Your task to perform on an android device: uninstall "Walmart Shopping & Grocery" Image 0: 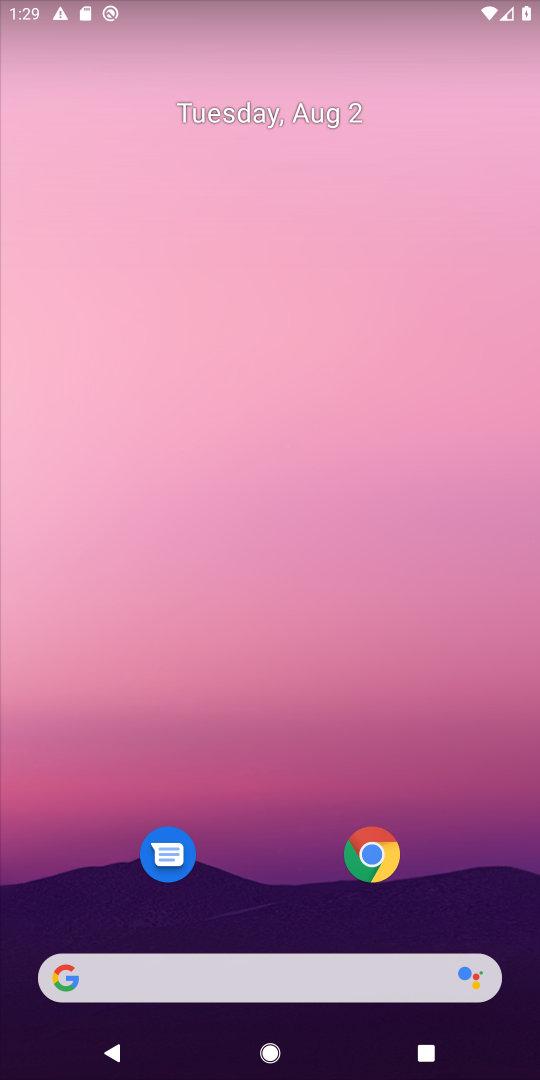
Step 0: drag from (302, 1065) to (321, 185)
Your task to perform on an android device: uninstall "Walmart Shopping & Grocery" Image 1: 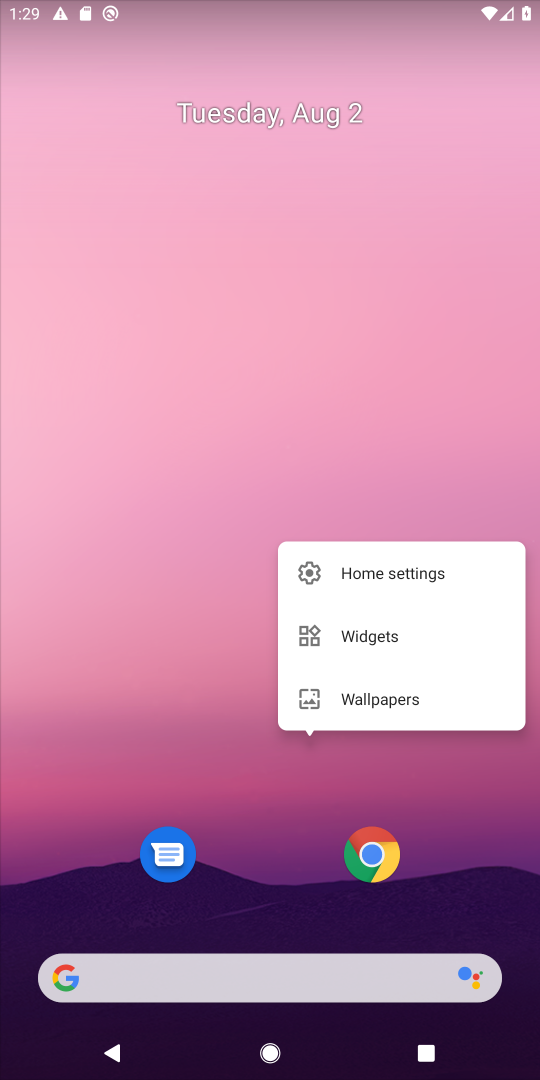
Step 1: click (405, 338)
Your task to perform on an android device: uninstall "Walmart Shopping & Grocery" Image 2: 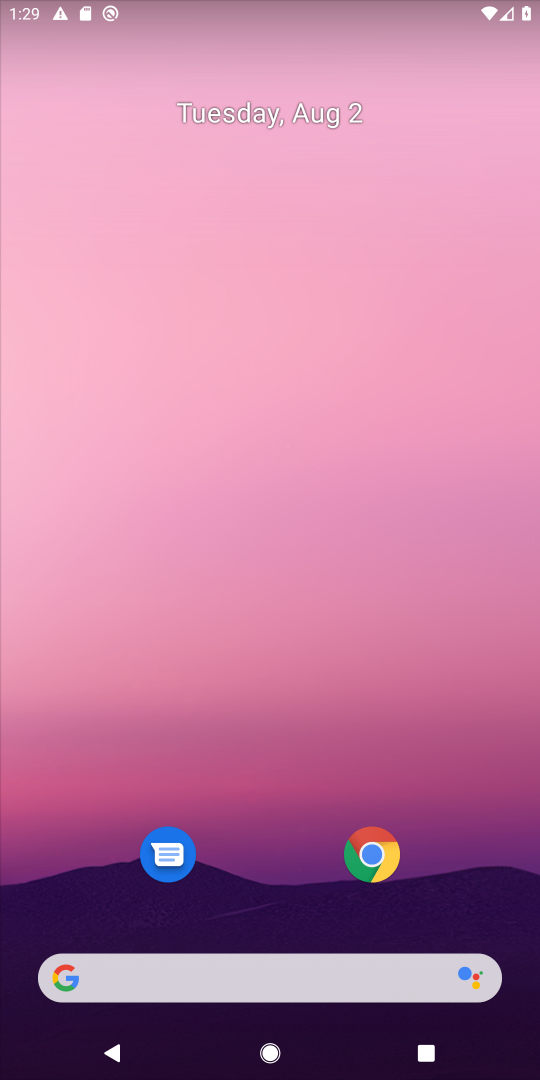
Step 2: drag from (291, 1033) to (296, 175)
Your task to perform on an android device: uninstall "Walmart Shopping & Grocery" Image 3: 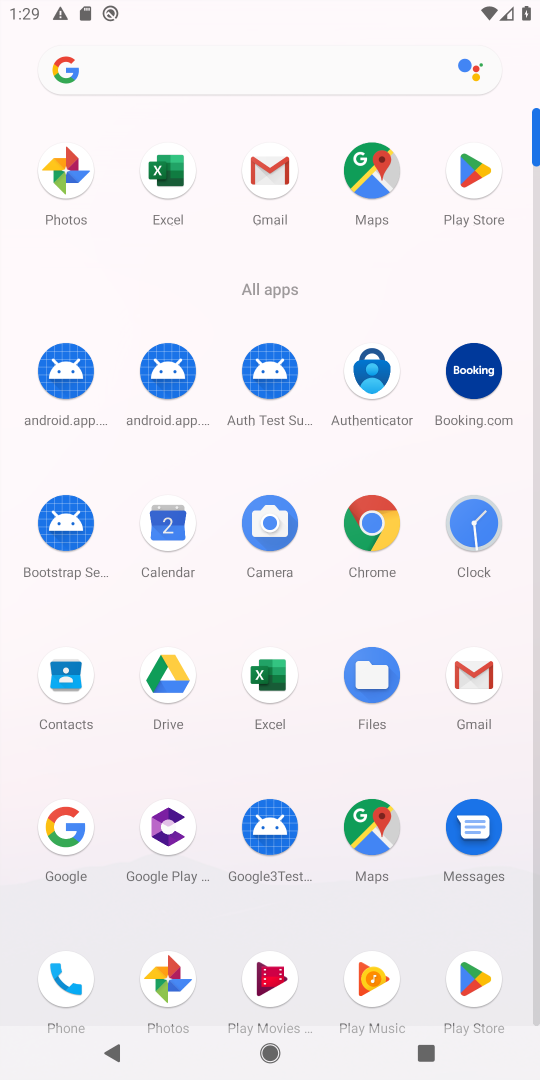
Step 3: click (464, 175)
Your task to perform on an android device: uninstall "Walmart Shopping & Grocery" Image 4: 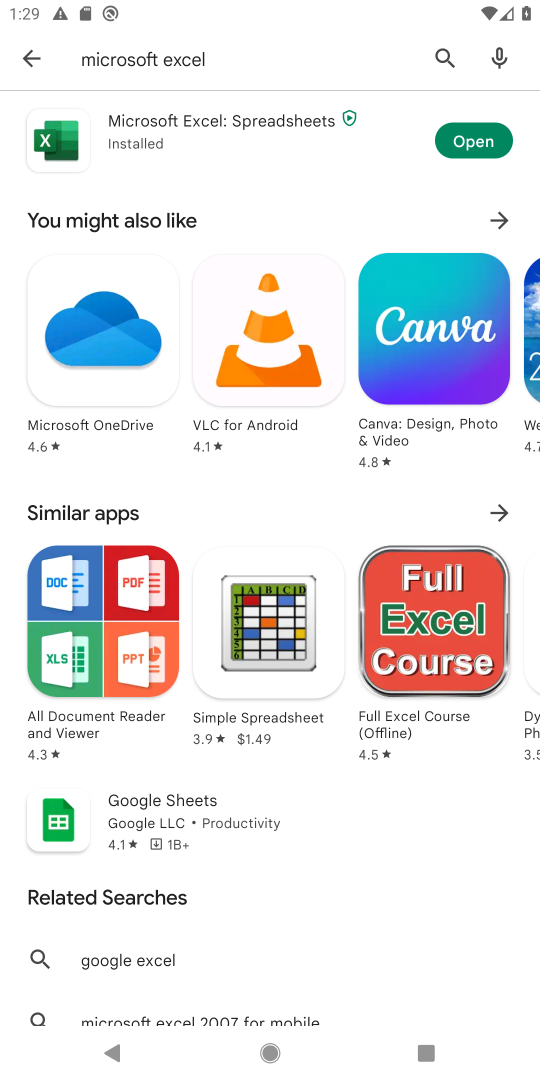
Step 4: click (444, 49)
Your task to perform on an android device: uninstall "Walmart Shopping & Grocery" Image 5: 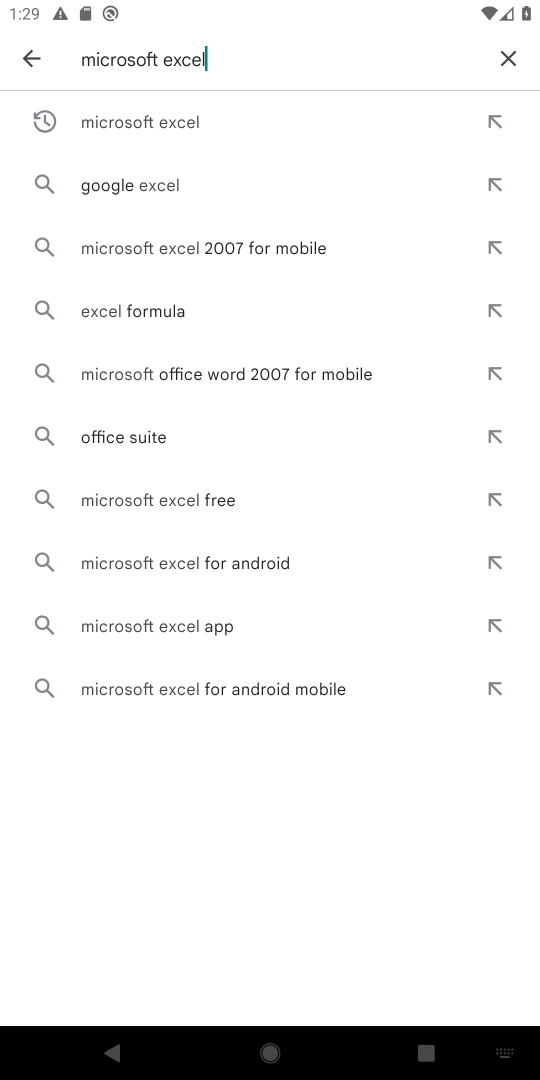
Step 5: click (508, 56)
Your task to perform on an android device: uninstall "Walmart Shopping & Grocery" Image 6: 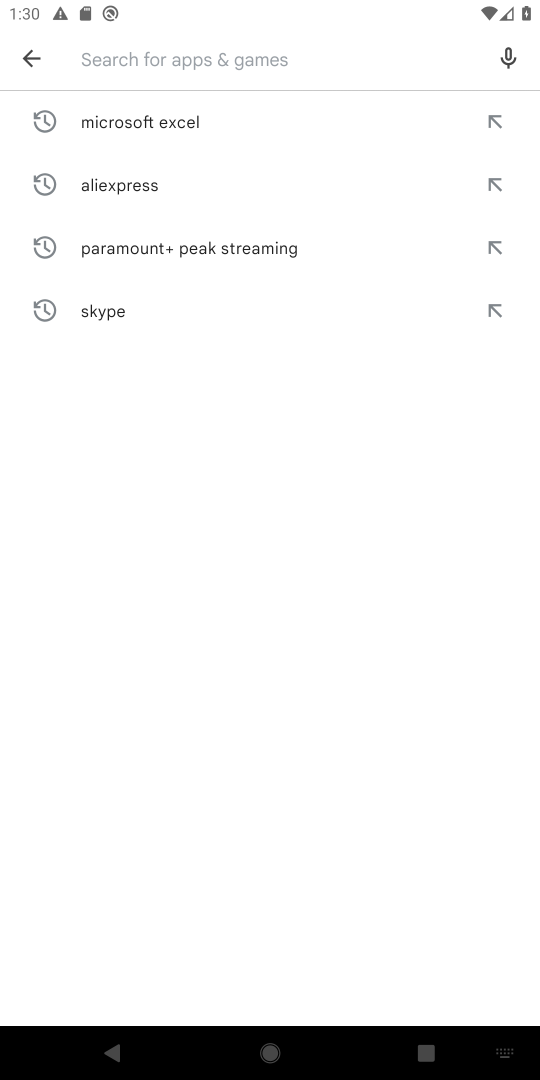
Step 6: type "Walmart Shopping & Grocery"
Your task to perform on an android device: uninstall "Walmart Shopping & Grocery" Image 7: 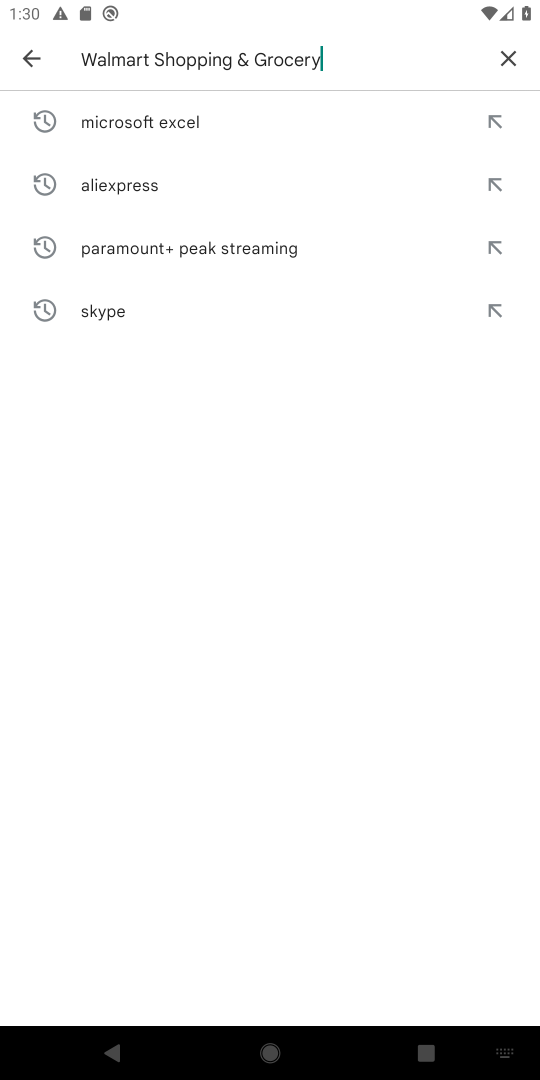
Step 7: type ""
Your task to perform on an android device: uninstall "Walmart Shopping & Grocery" Image 8: 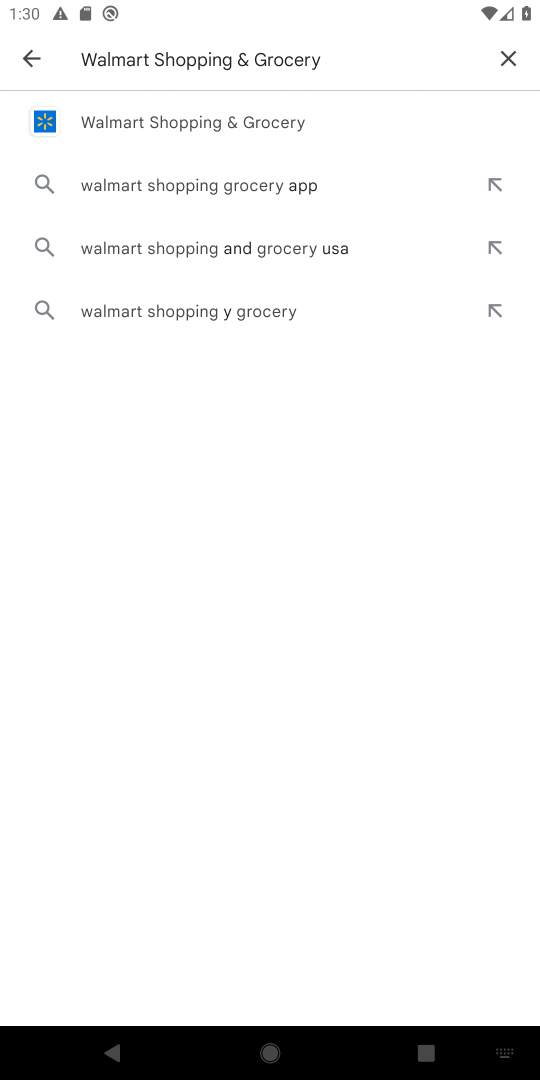
Step 8: click (192, 123)
Your task to perform on an android device: uninstall "Walmart Shopping & Grocery" Image 9: 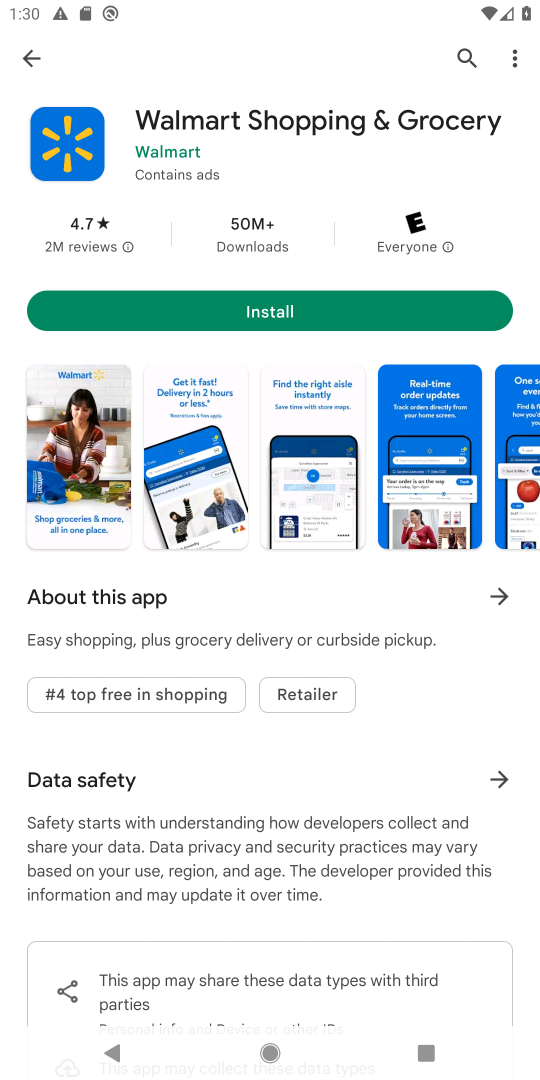
Step 9: task complete